Your task to perform on an android device: Do I have any events today? Image 0: 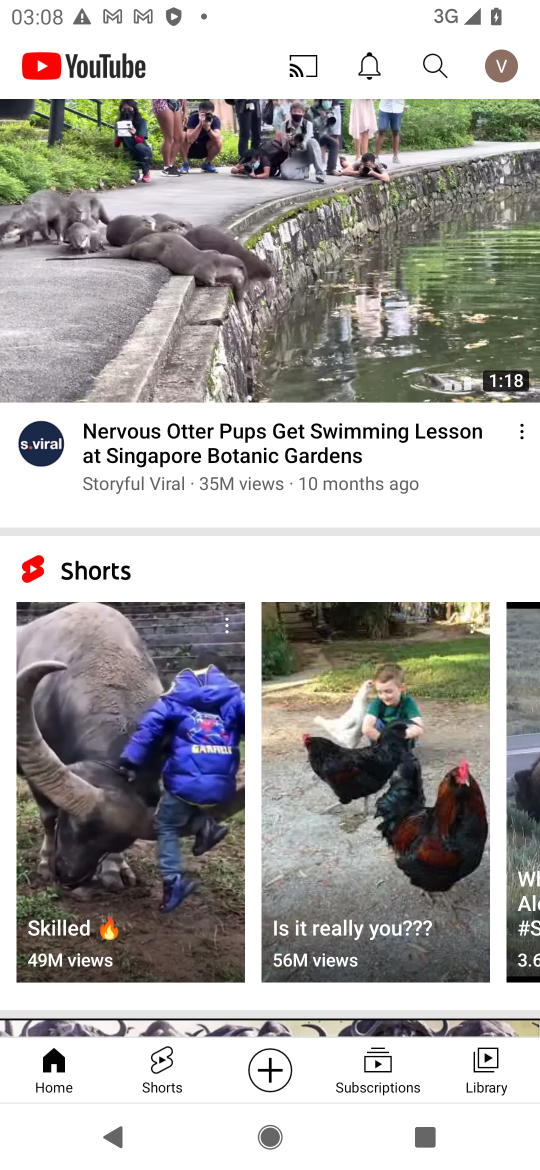
Step 0: press home button
Your task to perform on an android device: Do I have any events today? Image 1: 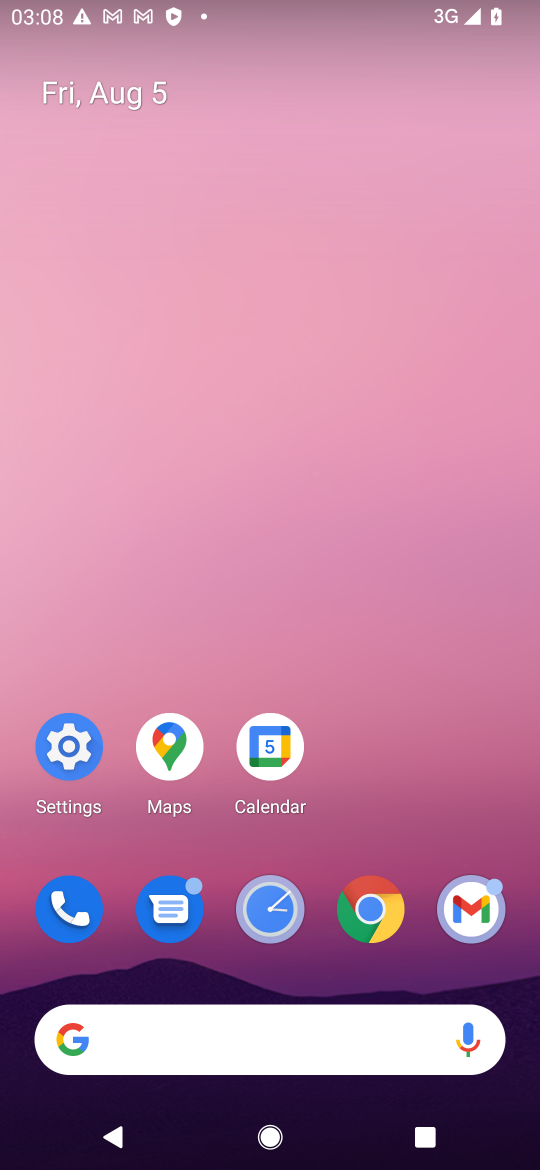
Step 1: click (266, 743)
Your task to perform on an android device: Do I have any events today? Image 2: 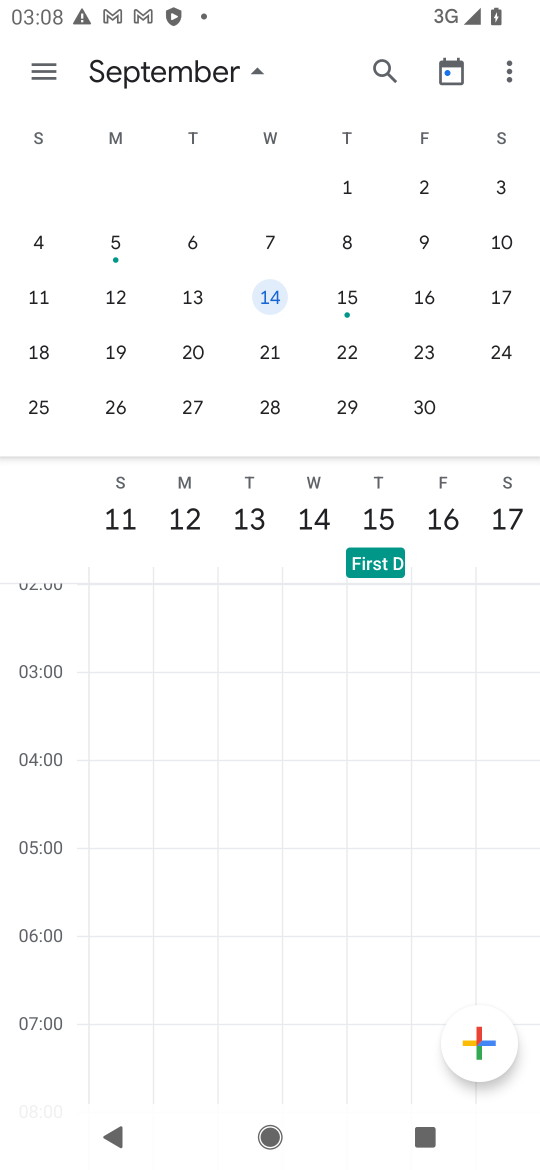
Step 2: drag from (66, 238) to (526, 249)
Your task to perform on an android device: Do I have any events today? Image 3: 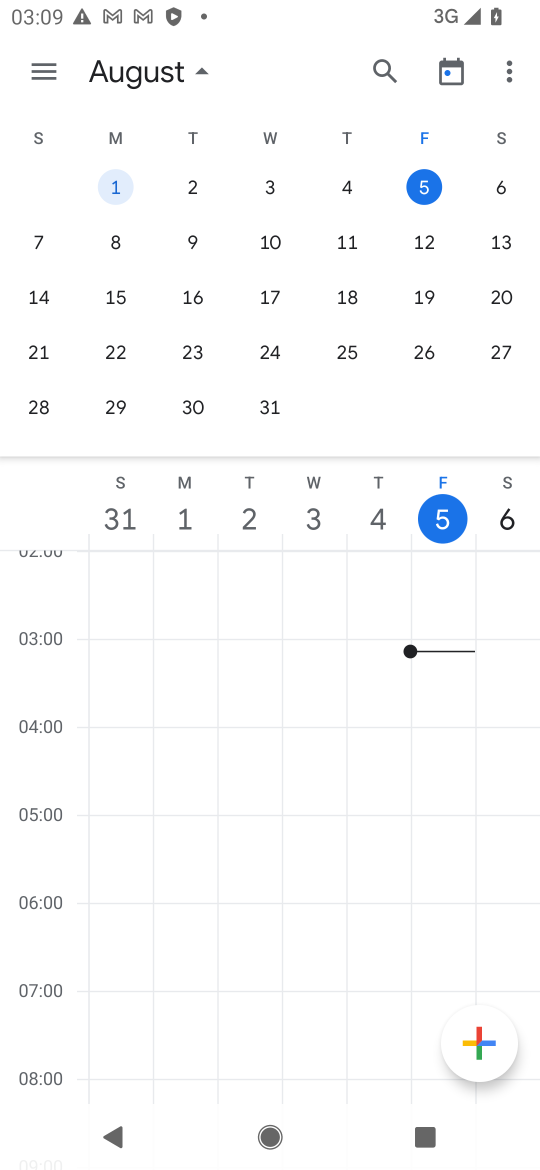
Step 3: click (424, 175)
Your task to perform on an android device: Do I have any events today? Image 4: 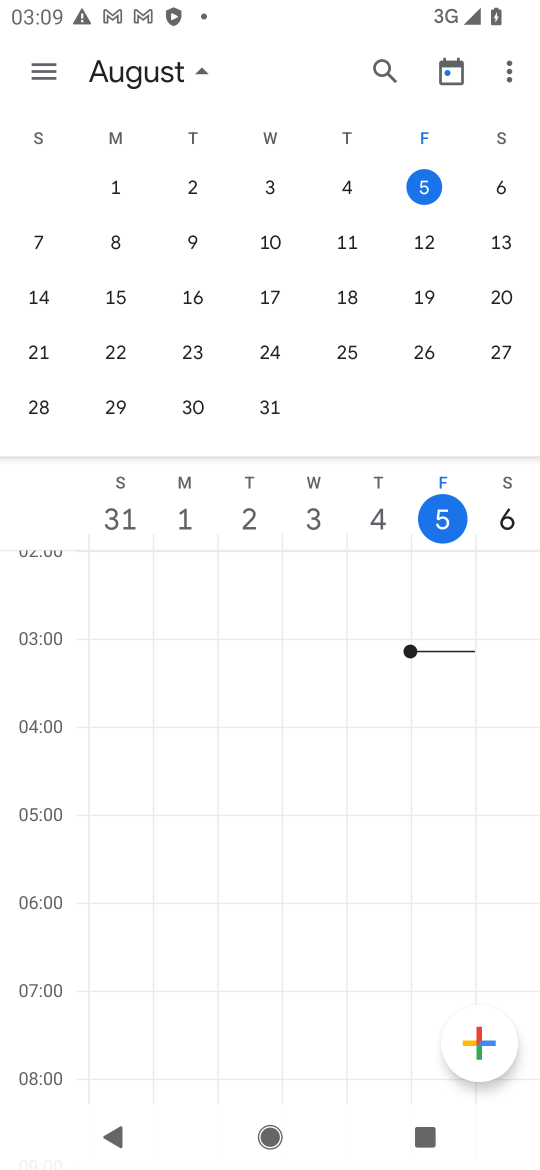
Step 4: click (441, 493)
Your task to perform on an android device: Do I have any events today? Image 5: 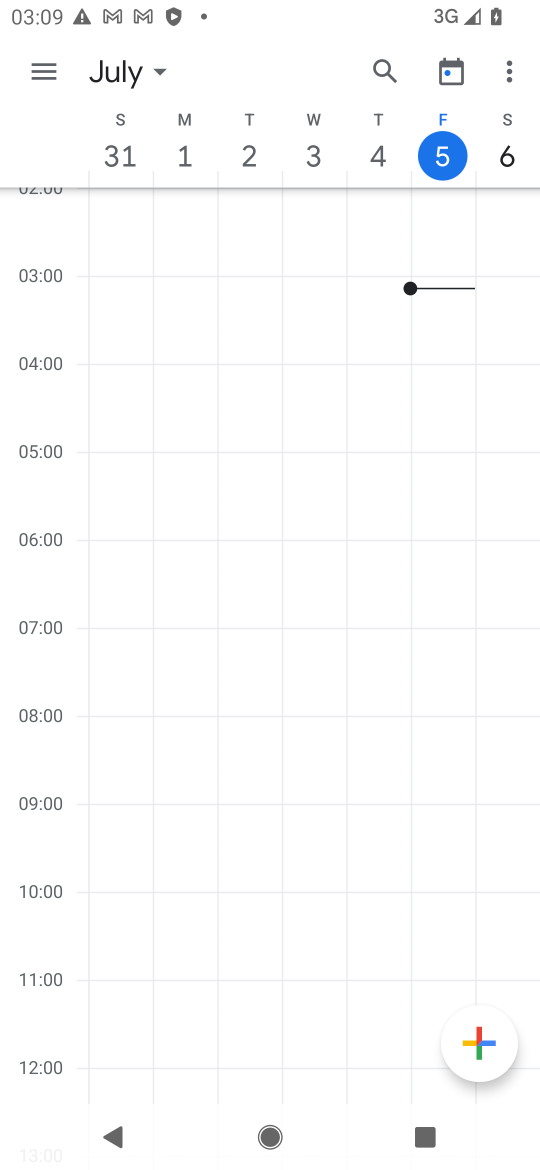
Step 5: click (443, 147)
Your task to perform on an android device: Do I have any events today? Image 6: 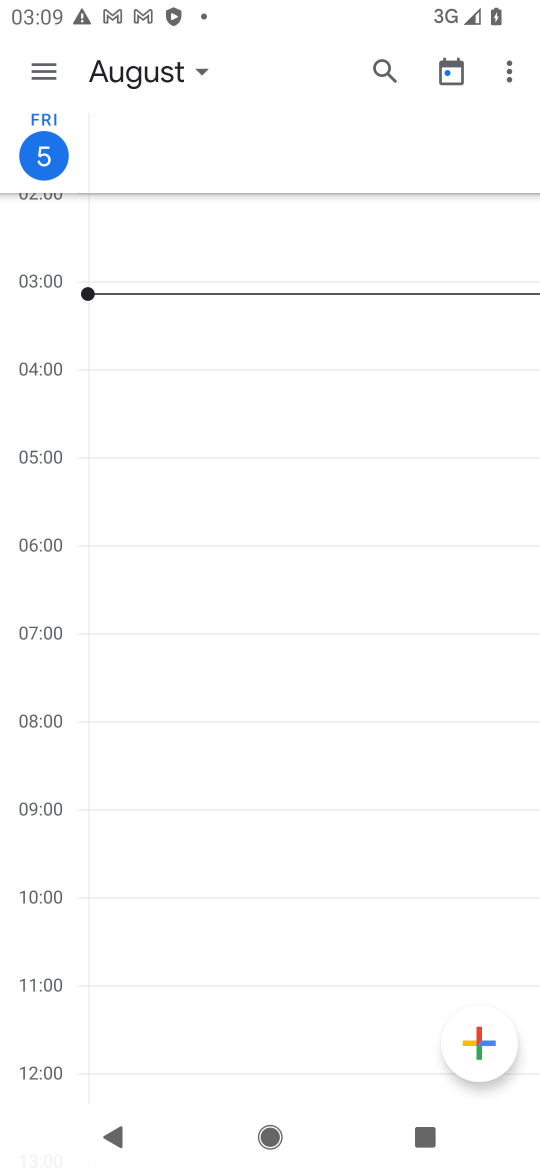
Step 6: task complete